Your task to perform on an android device: Open network settings Image 0: 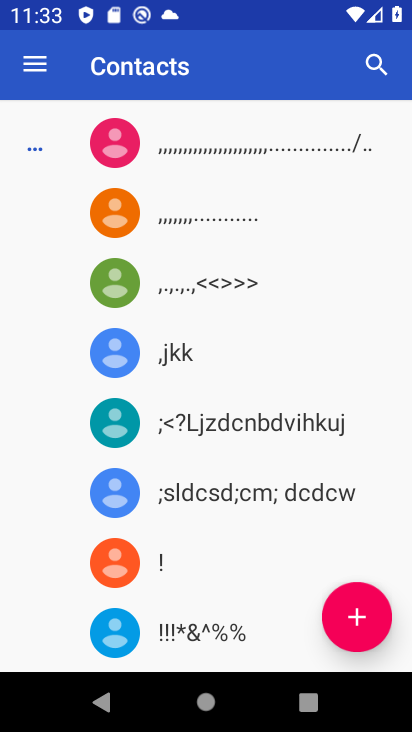
Step 0: press home button
Your task to perform on an android device: Open network settings Image 1: 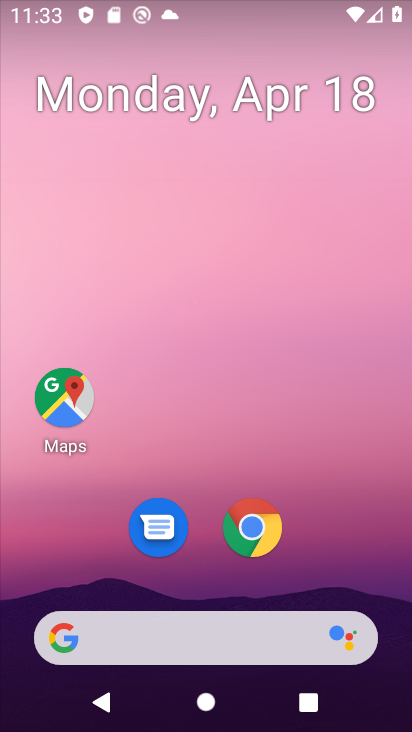
Step 1: drag from (233, 615) to (411, 69)
Your task to perform on an android device: Open network settings Image 2: 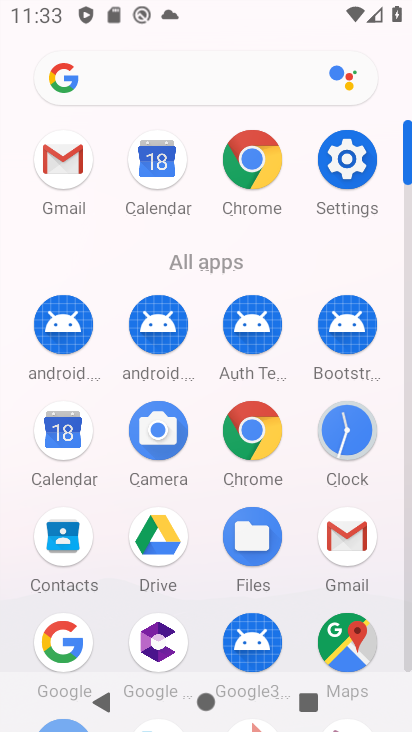
Step 2: click (345, 179)
Your task to perform on an android device: Open network settings Image 3: 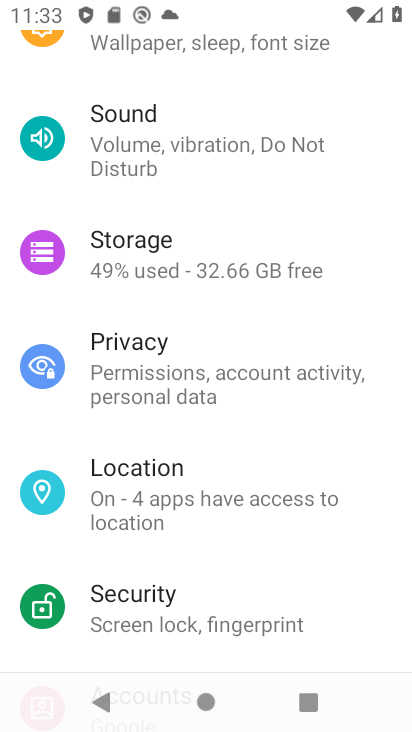
Step 3: drag from (268, 127) to (262, 400)
Your task to perform on an android device: Open network settings Image 4: 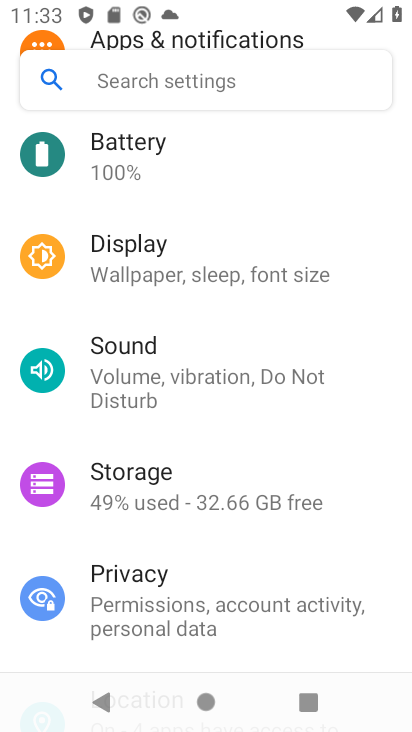
Step 4: drag from (308, 138) to (232, 624)
Your task to perform on an android device: Open network settings Image 5: 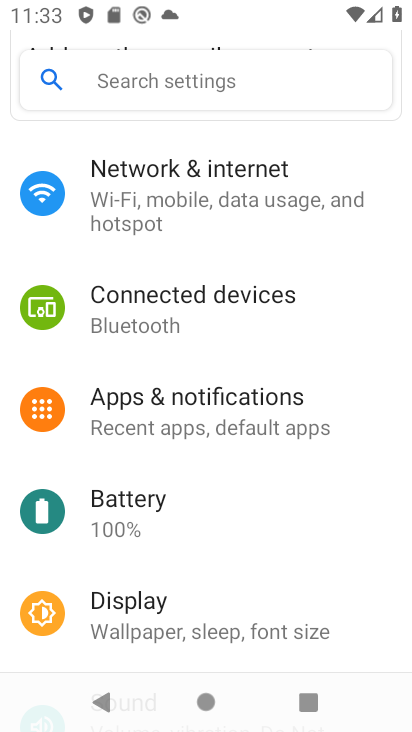
Step 5: click (298, 192)
Your task to perform on an android device: Open network settings Image 6: 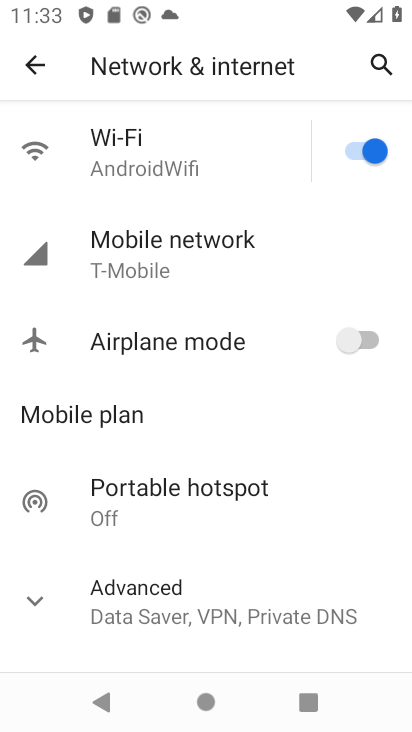
Step 6: task complete